Your task to perform on an android device: add a contact in the contacts app Image 0: 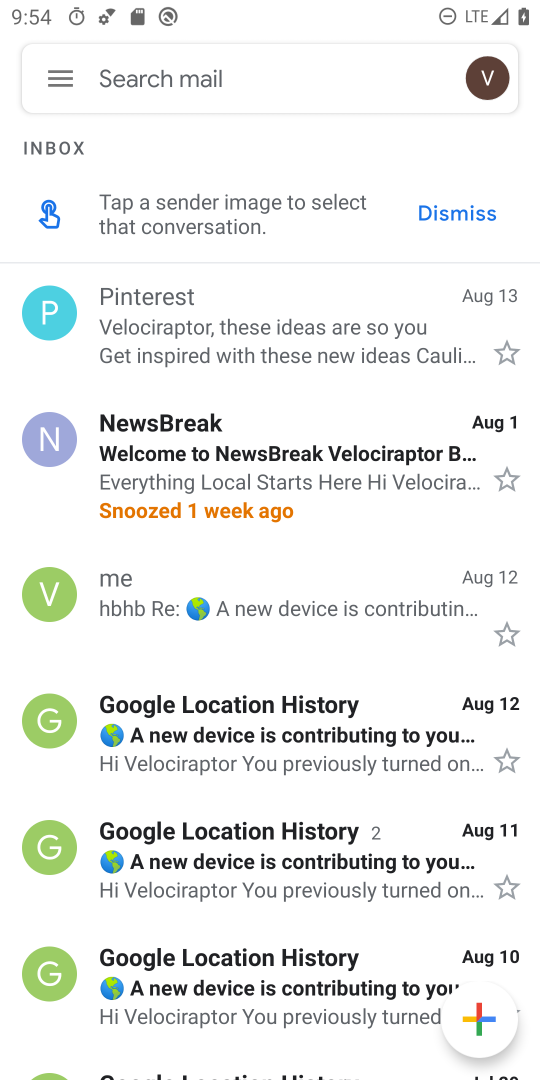
Step 0: press home button
Your task to perform on an android device: add a contact in the contacts app Image 1: 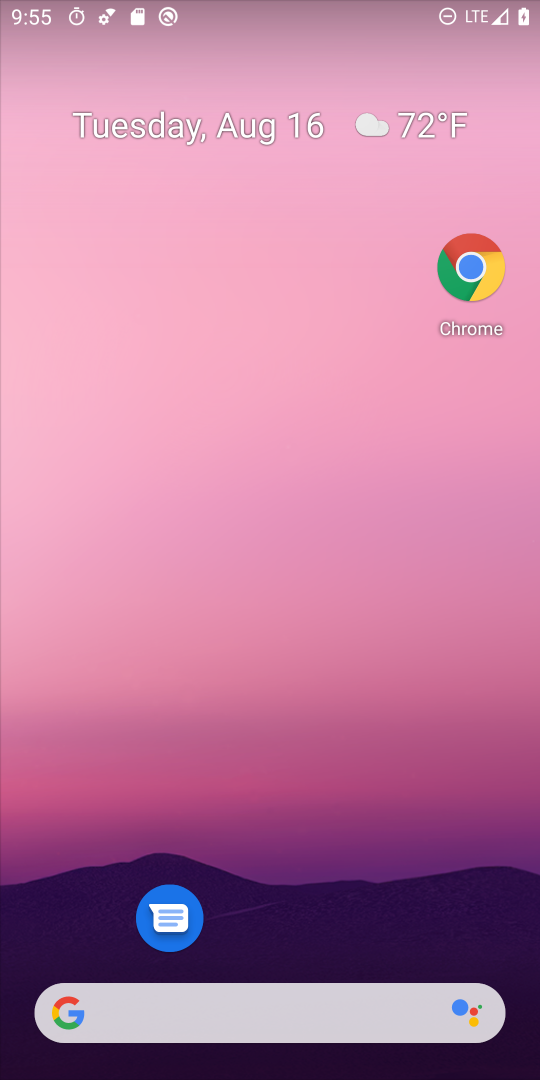
Step 1: drag from (410, 838) to (353, 0)
Your task to perform on an android device: add a contact in the contacts app Image 2: 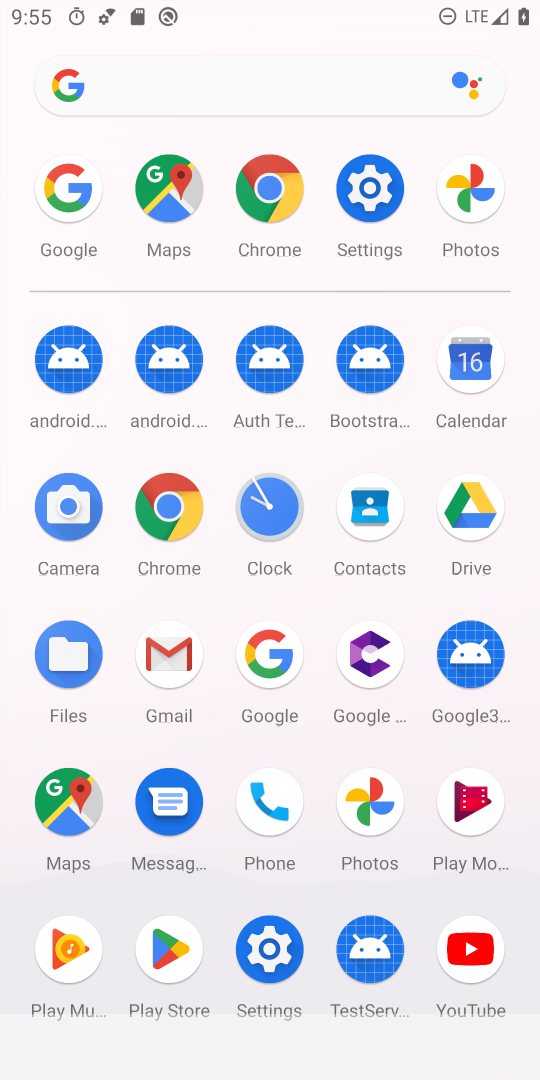
Step 2: click (389, 541)
Your task to perform on an android device: add a contact in the contacts app Image 3: 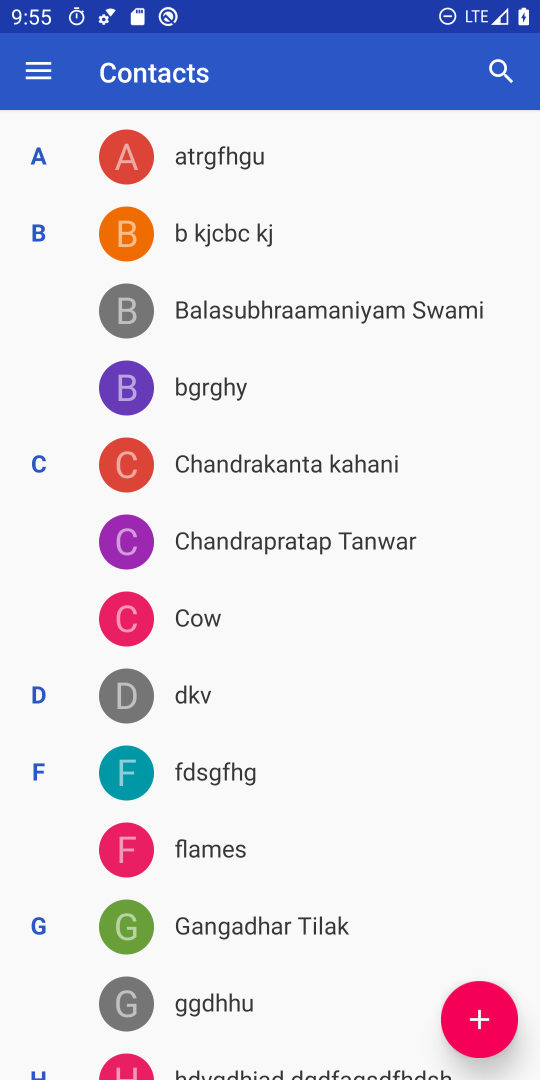
Step 3: click (467, 1019)
Your task to perform on an android device: add a contact in the contacts app Image 4: 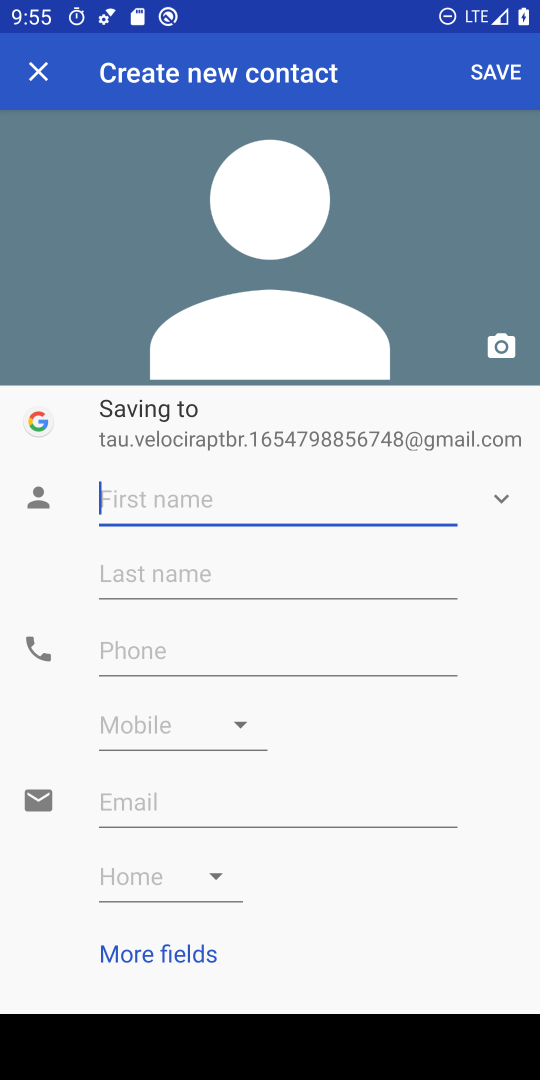
Step 4: type "hfsuifbdufsd\"
Your task to perform on an android device: add a contact in the contacts app Image 5: 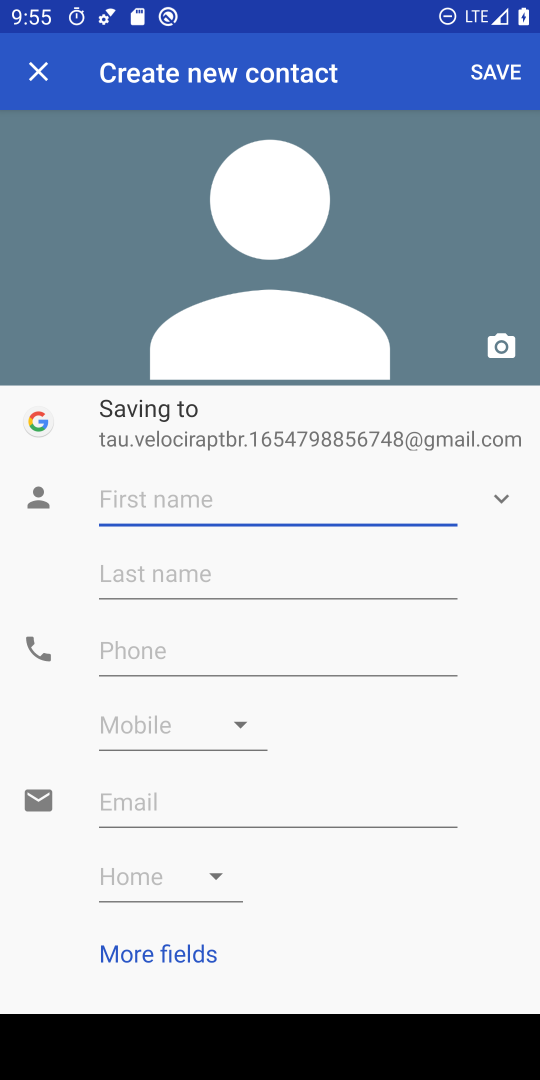
Step 5: click (186, 666)
Your task to perform on an android device: add a contact in the contacts app Image 6: 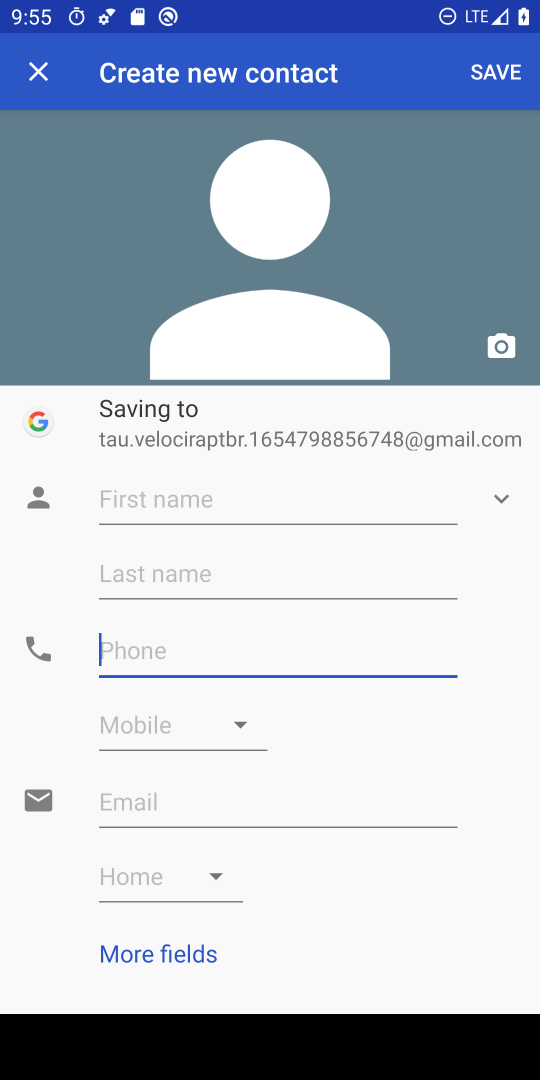
Step 6: type "86754465"
Your task to perform on an android device: add a contact in the contacts app Image 7: 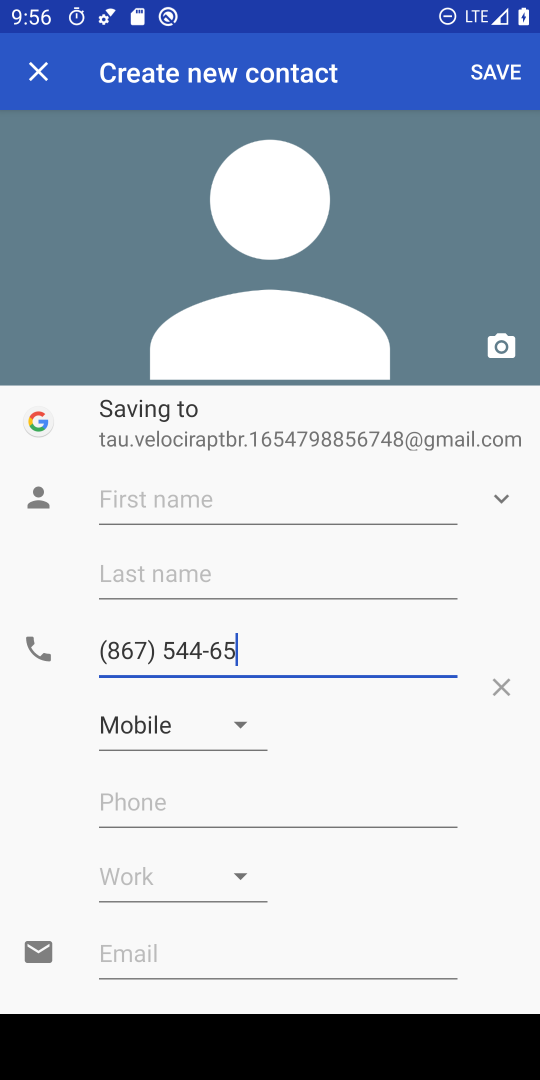
Step 7: type ""
Your task to perform on an android device: add a contact in the contacts app Image 8: 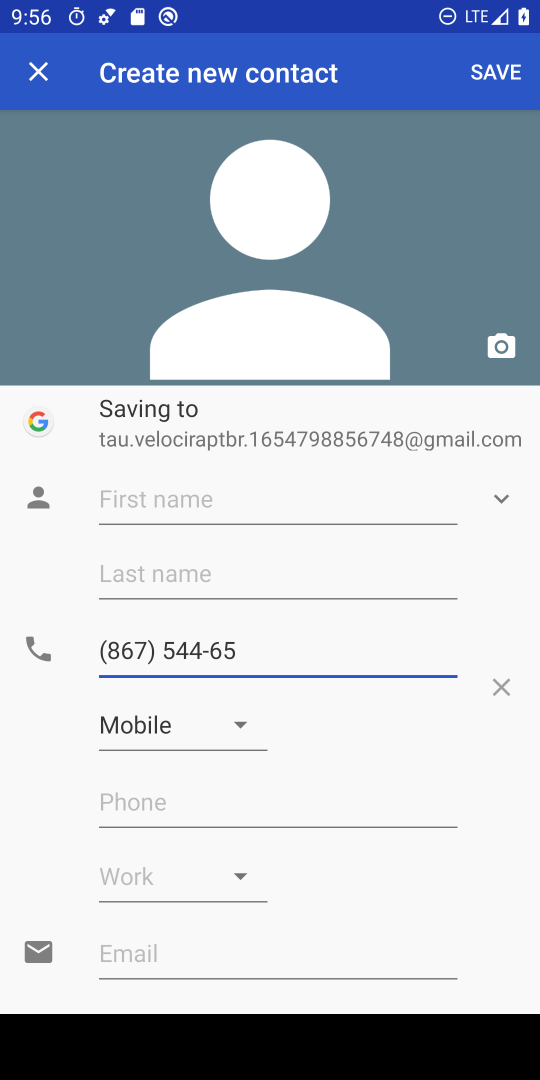
Step 8: click (235, 498)
Your task to perform on an android device: add a contact in the contacts app Image 9: 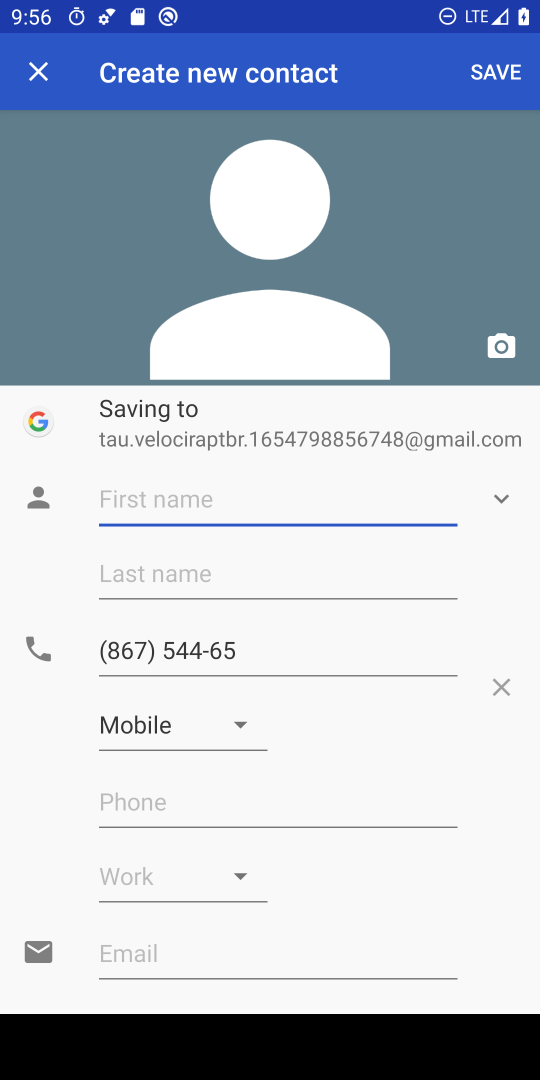
Step 9: type "rdgfuteft"
Your task to perform on an android device: add a contact in the contacts app Image 10: 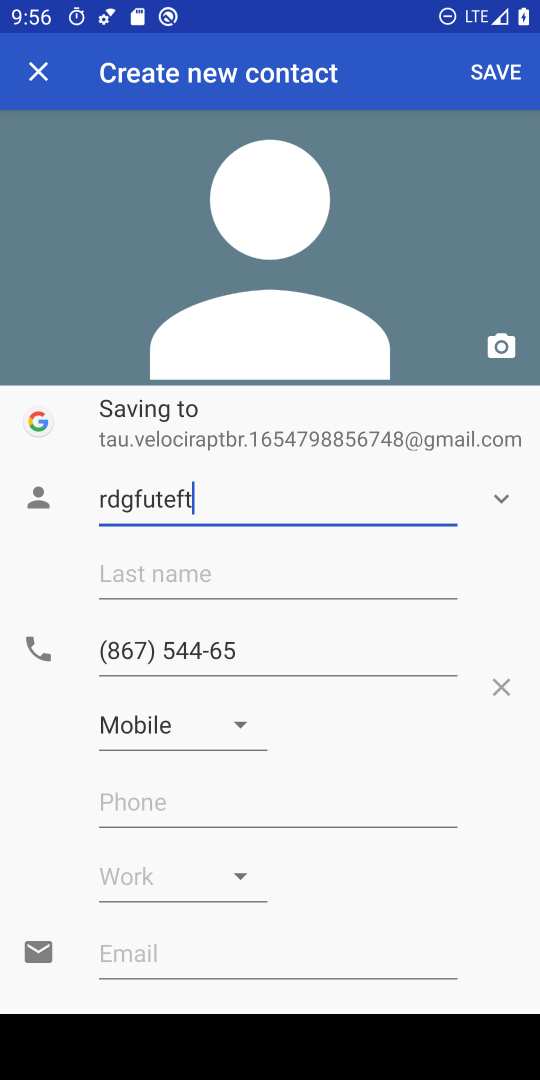
Step 10: type ""
Your task to perform on an android device: add a contact in the contacts app Image 11: 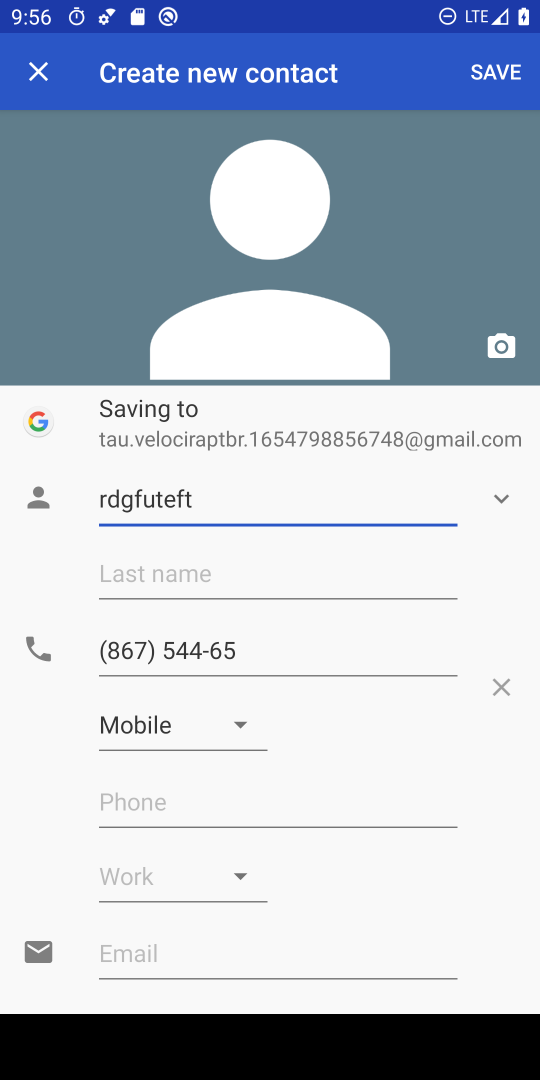
Step 11: click (501, 72)
Your task to perform on an android device: add a contact in the contacts app Image 12: 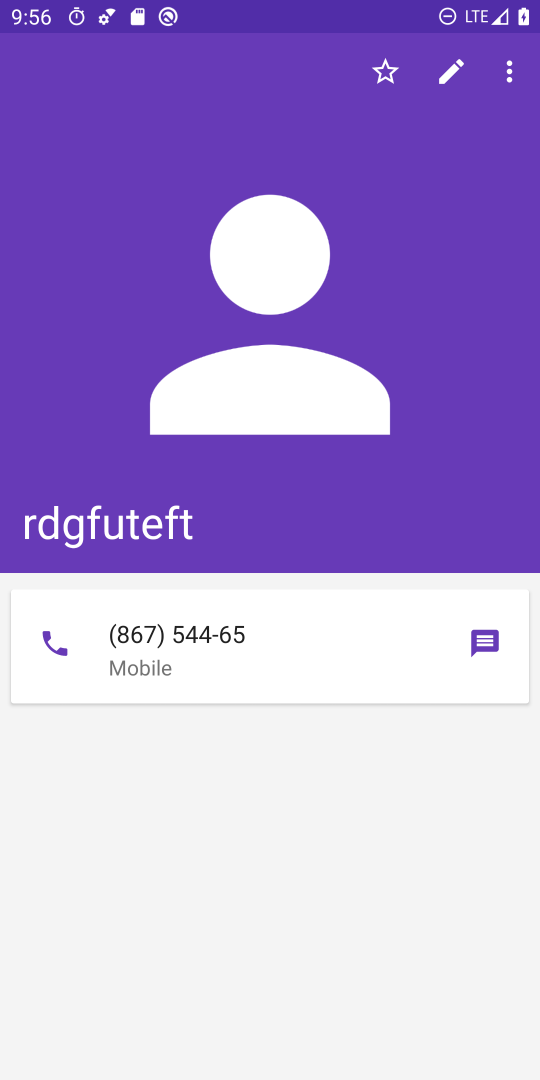
Step 12: task complete